Your task to perform on an android device: turn off improve location accuracy Image 0: 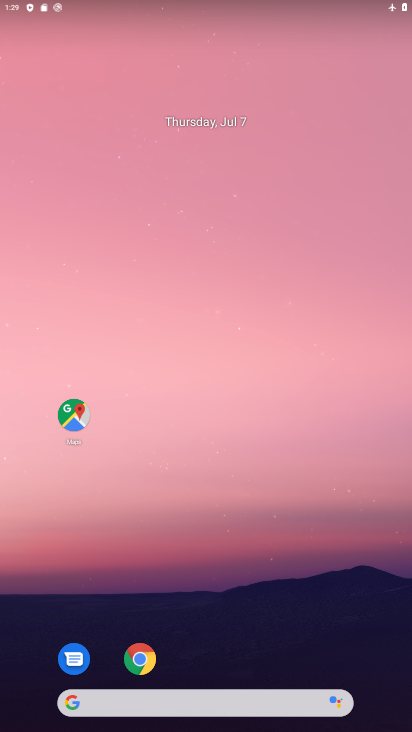
Step 0: drag from (270, 636) to (294, 259)
Your task to perform on an android device: turn off improve location accuracy Image 1: 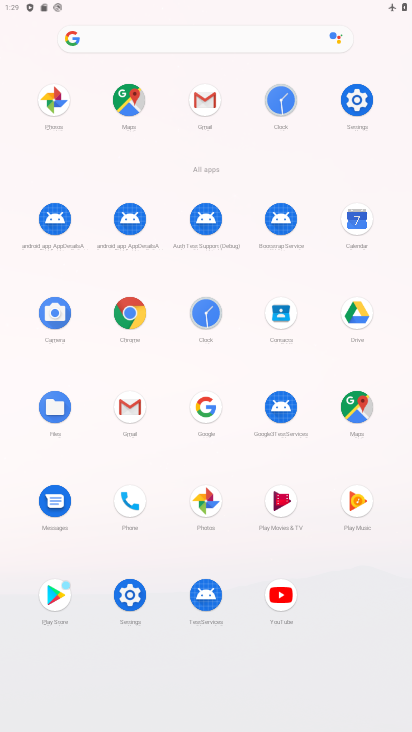
Step 1: click (358, 106)
Your task to perform on an android device: turn off improve location accuracy Image 2: 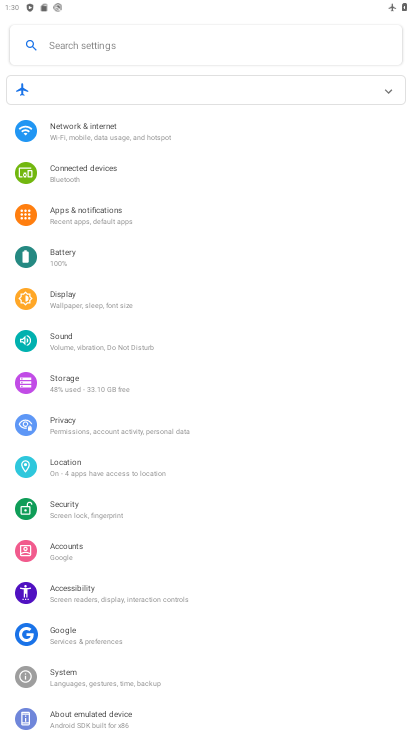
Step 2: click (107, 473)
Your task to perform on an android device: turn off improve location accuracy Image 3: 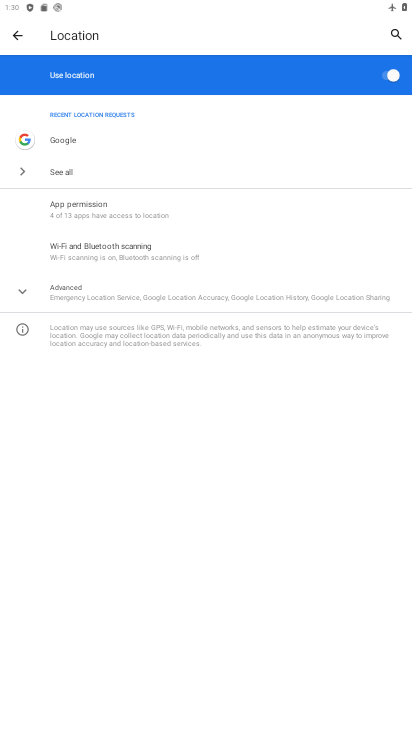
Step 3: click (143, 302)
Your task to perform on an android device: turn off improve location accuracy Image 4: 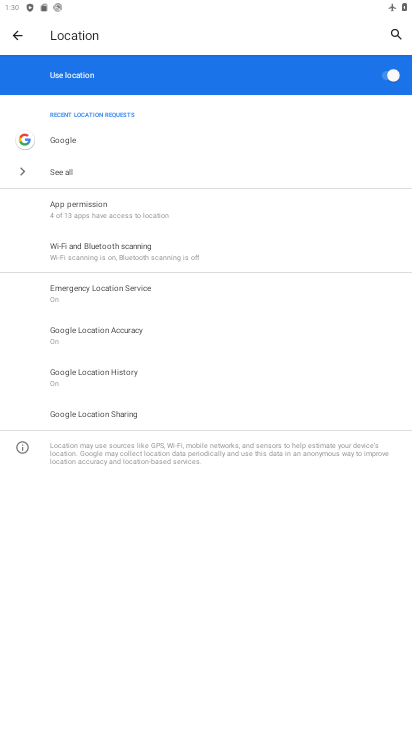
Step 4: click (113, 336)
Your task to perform on an android device: turn off improve location accuracy Image 5: 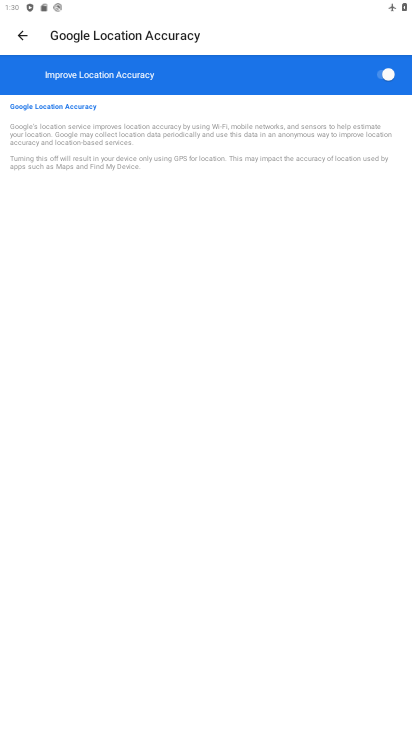
Step 5: click (366, 73)
Your task to perform on an android device: turn off improve location accuracy Image 6: 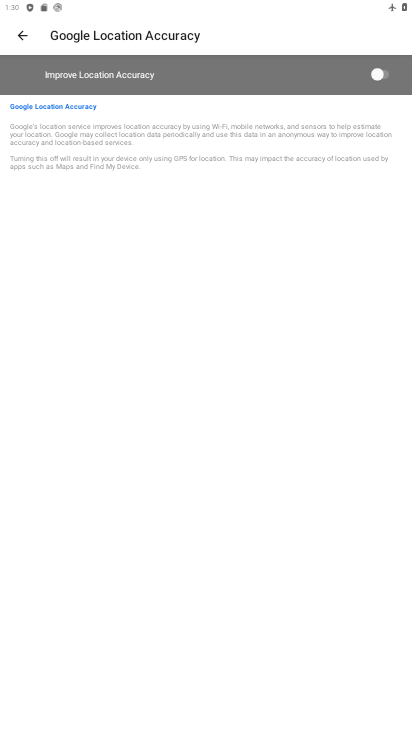
Step 6: task complete